Your task to perform on an android device: When is my next appointment? Image 0: 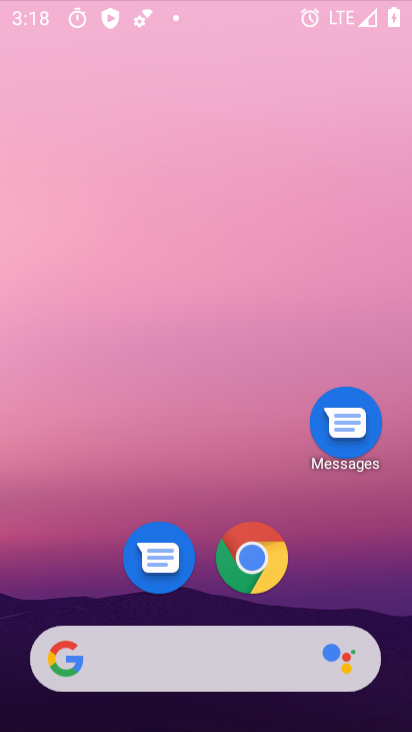
Step 0: click (347, 300)
Your task to perform on an android device: When is my next appointment? Image 1: 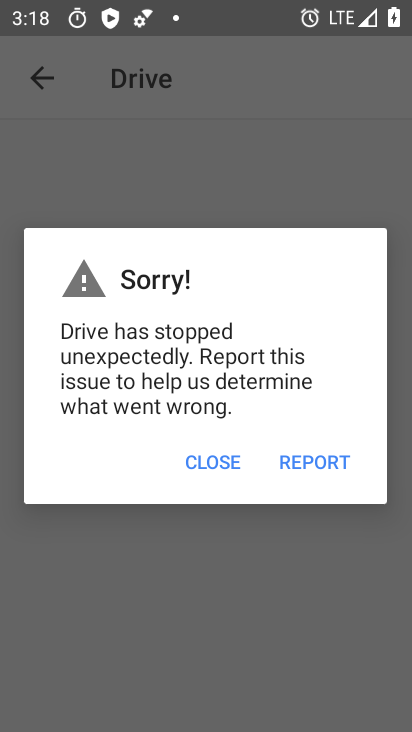
Step 1: press home button
Your task to perform on an android device: When is my next appointment? Image 2: 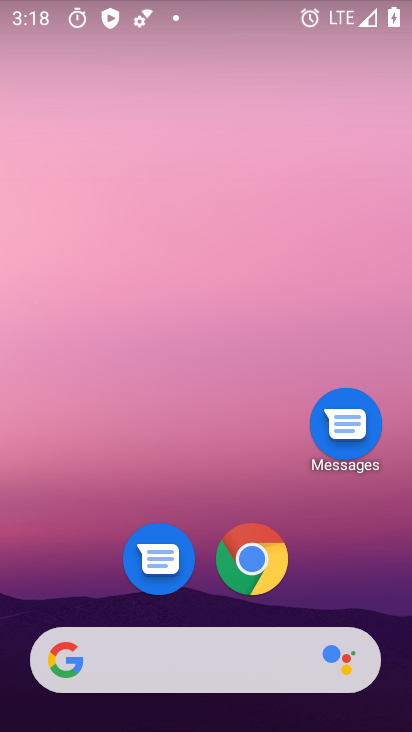
Step 2: drag from (51, 586) to (105, 181)
Your task to perform on an android device: When is my next appointment? Image 3: 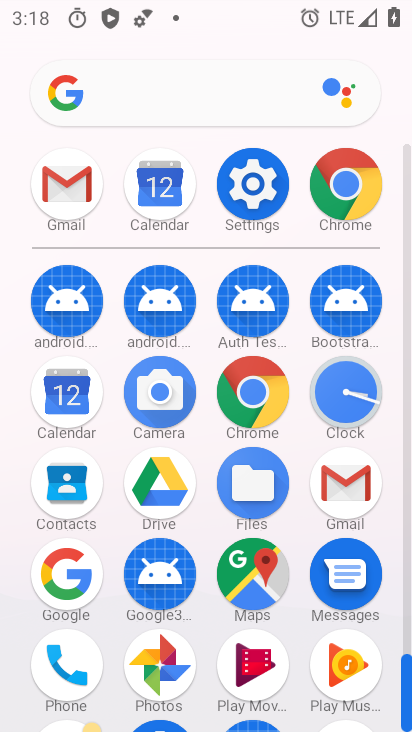
Step 3: click (71, 402)
Your task to perform on an android device: When is my next appointment? Image 4: 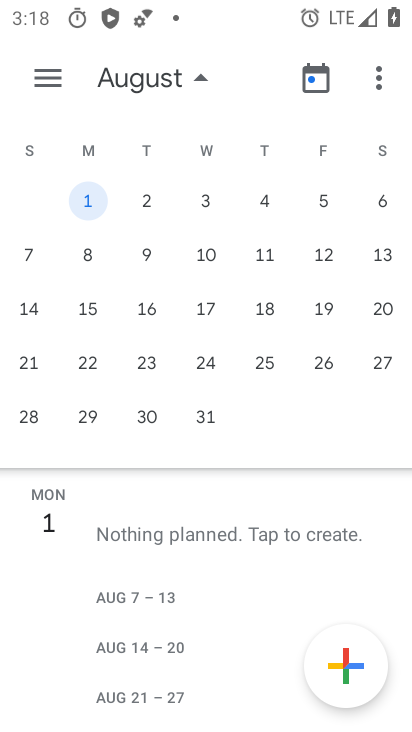
Step 4: task complete